Your task to perform on an android device: Open settings Image 0: 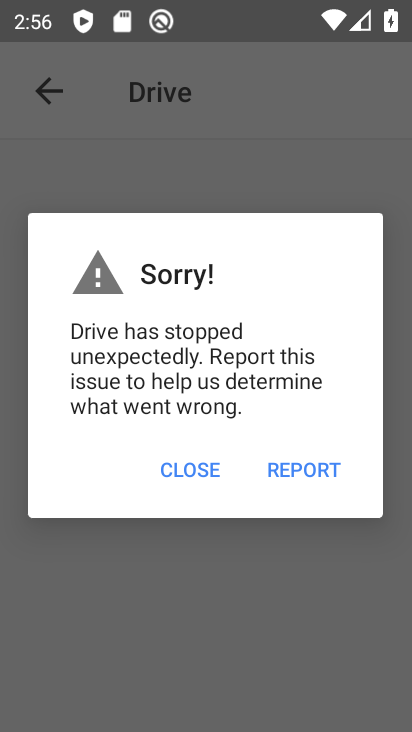
Step 0: press home button
Your task to perform on an android device: Open settings Image 1: 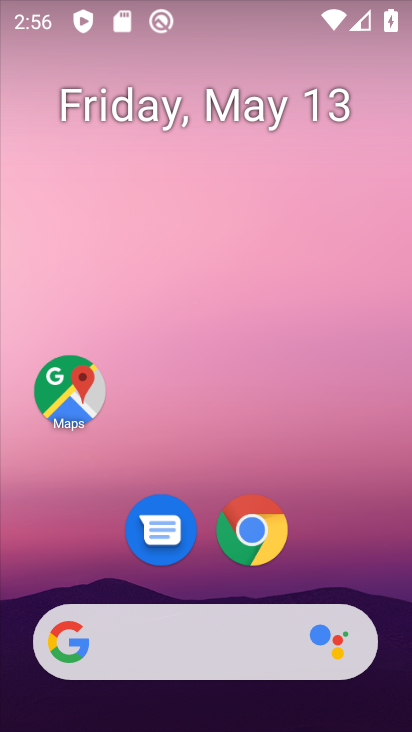
Step 1: drag from (338, 487) to (341, 106)
Your task to perform on an android device: Open settings Image 2: 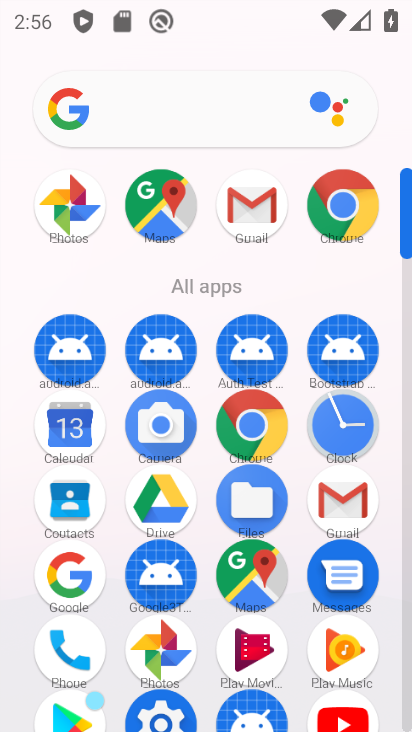
Step 2: click (176, 699)
Your task to perform on an android device: Open settings Image 3: 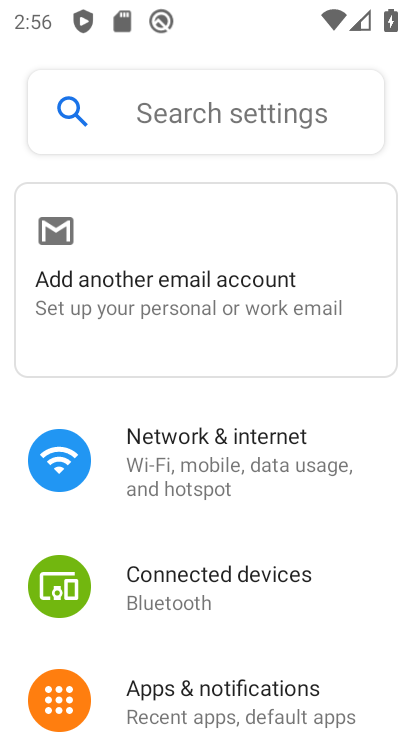
Step 3: task complete